Your task to perform on an android device: What is the news today? Image 0: 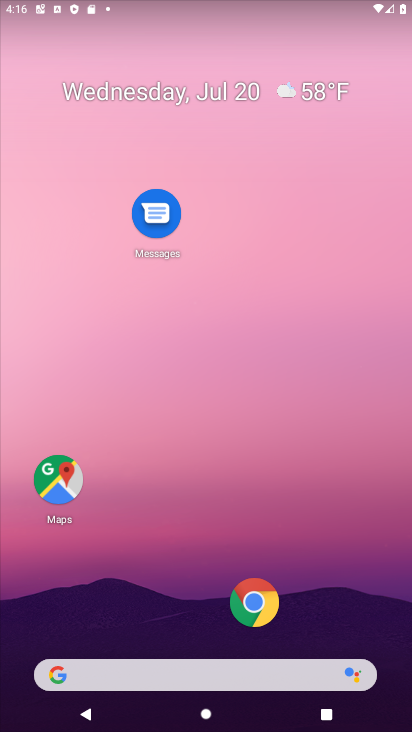
Step 0: click (117, 673)
Your task to perform on an android device: What is the news today? Image 1: 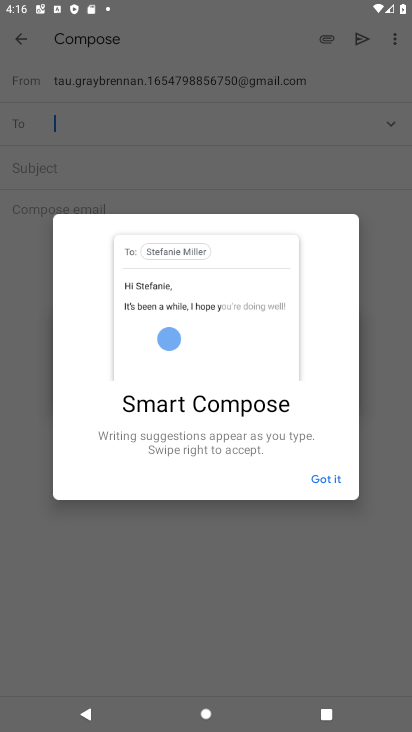
Step 1: click (329, 482)
Your task to perform on an android device: What is the news today? Image 2: 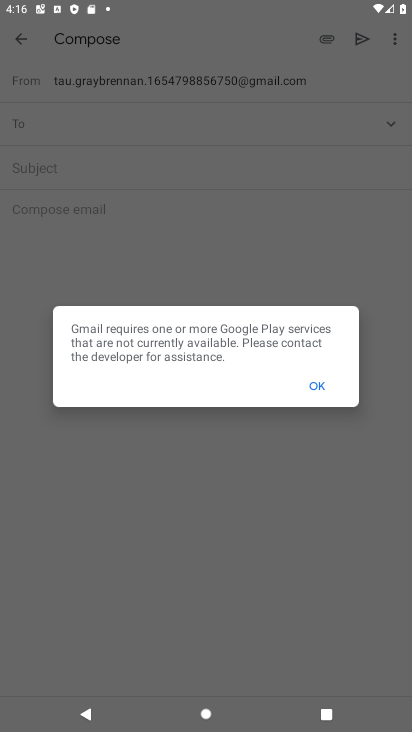
Step 2: click (315, 382)
Your task to perform on an android device: What is the news today? Image 3: 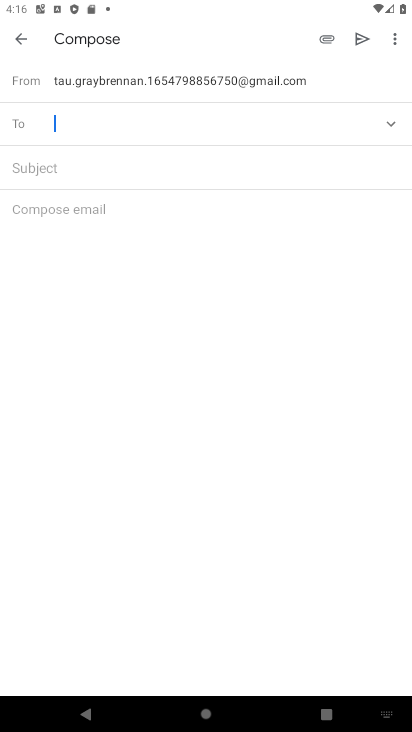
Step 3: press home button
Your task to perform on an android device: What is the news today? Image 4: 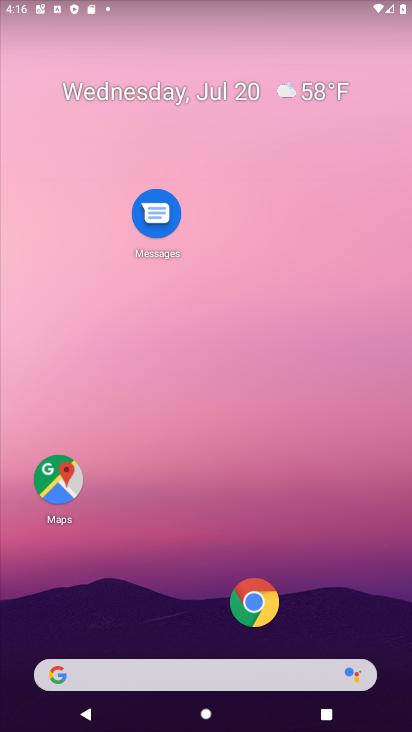
Step 4: click (154, 674)
Your task to perform on an android device: What is the news today? Image 5: 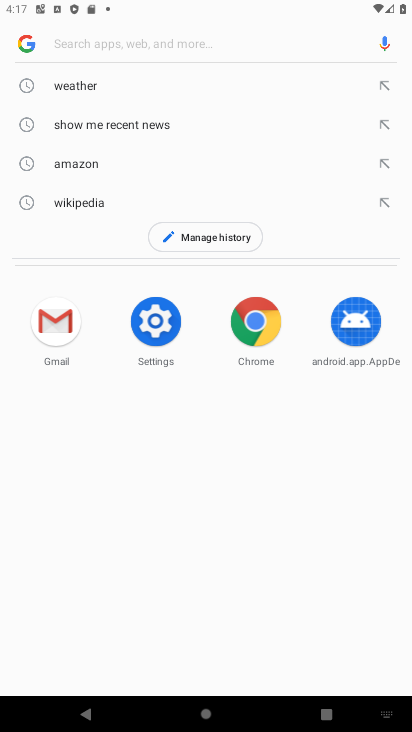
Step 5: type "news today"
Your task to perform on an android device: What is the news today? Image 6: 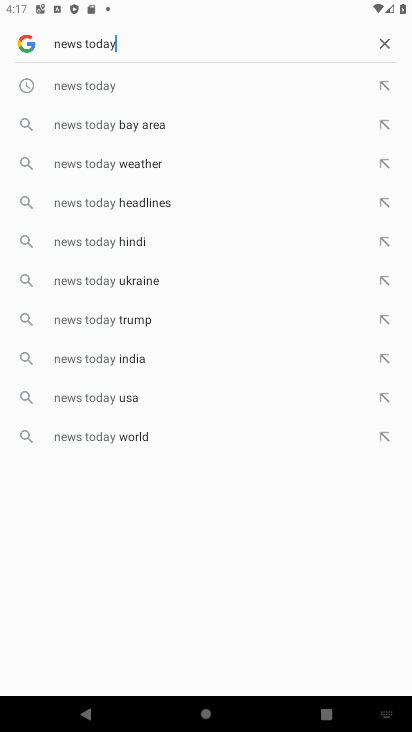
Step 6: click (94, 93)
Your task to perform on an android device: What is the news today? Image 7: 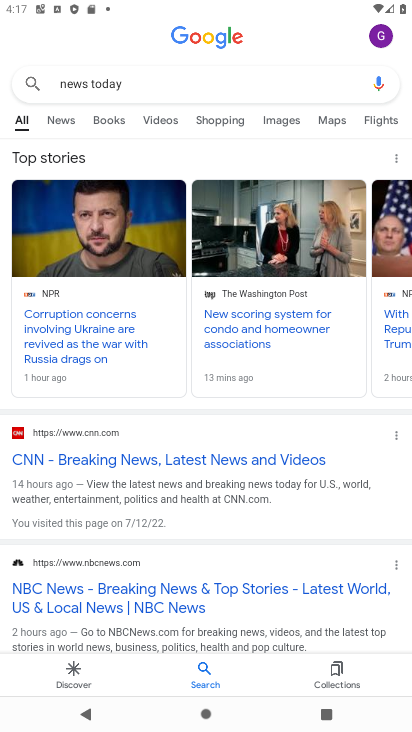
Step 7: task complete